Your task to perform on an android device: remove spam from my inbox in the gmail app Image 0: 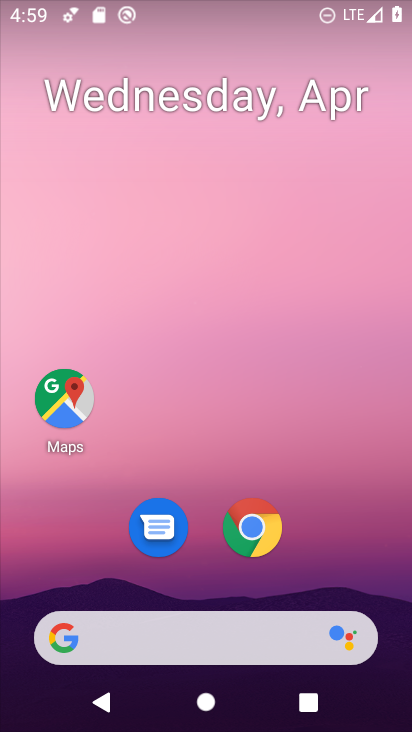
Step 0: drag from (383, 566) to (384, 6)
Your task to perform on an android device: remove spam from my inbox in the gmail app Image 1: 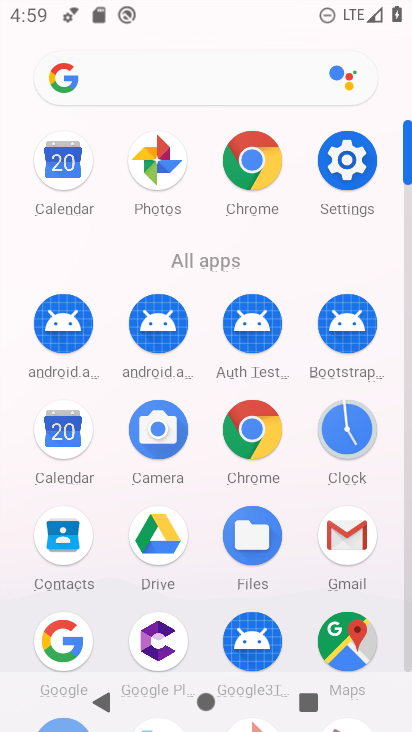
Step 1: click (348, 544)
Your task to perform on an android device: remove spam from my inbox in the gmail app Image 2: 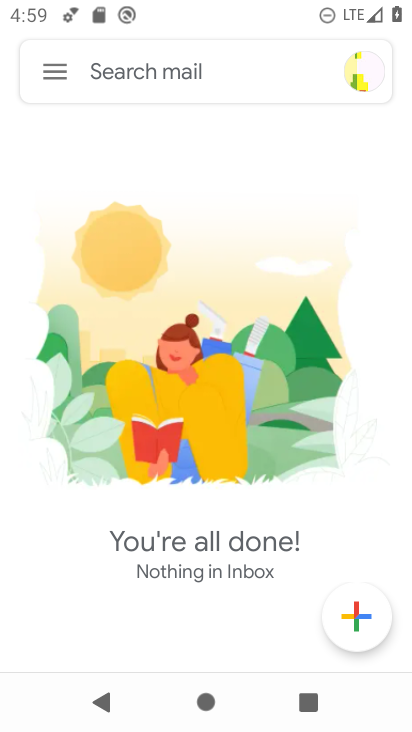
Step 2: click (52, 68)
Your task to perform on an android device: remove spam from my inbox in the gmail app Image 3: 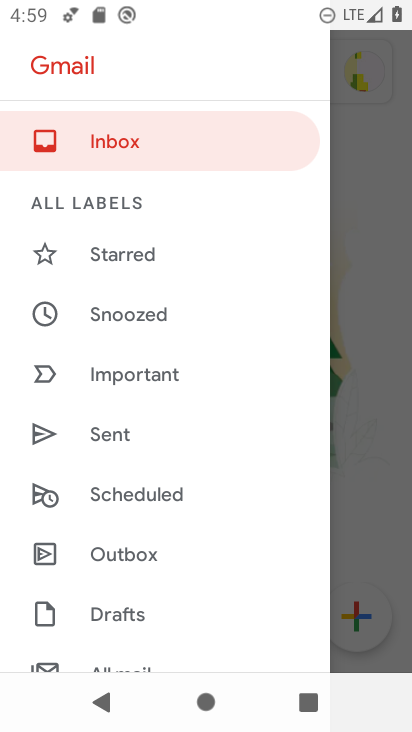
Step 3: drag from (235, 590) to (245, 267)
Your task to perform on an android device: remove spam from my inbox in the gmail app Image 4: 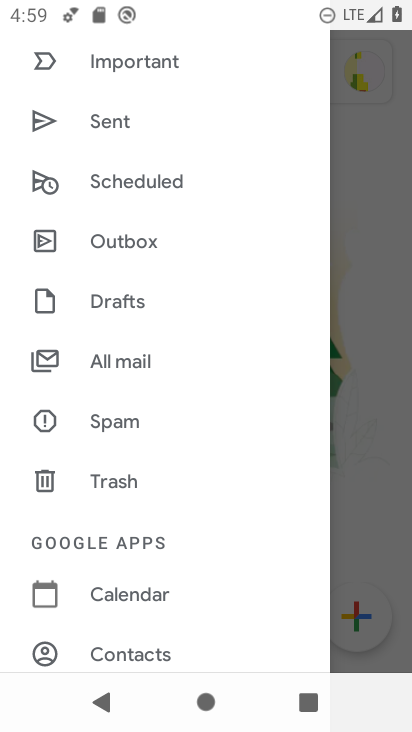
Step 4: click (100, 424)
Your task to perform on an android device: remove spam from my inbox in the gmail app Image 5: 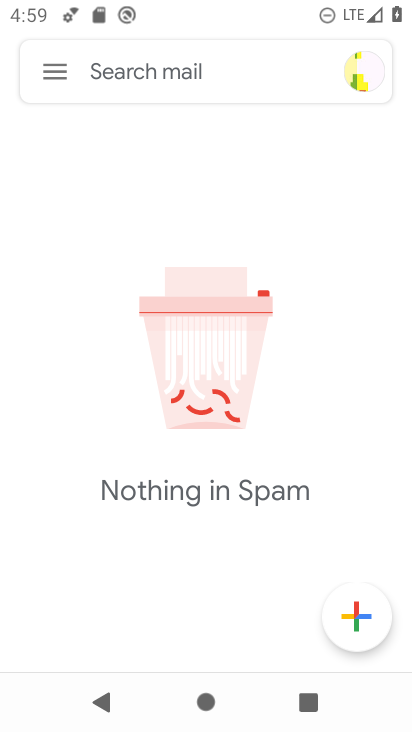
Step 5: task complete